Your task to perform on an android device: change your default location settings in chrome Image 0: 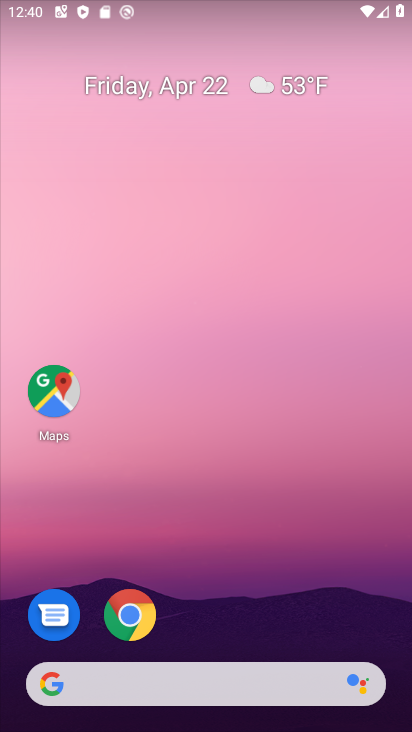
Step 0: press home button
Your task to perform on an android device: change your default location settings in chrome Image 1: 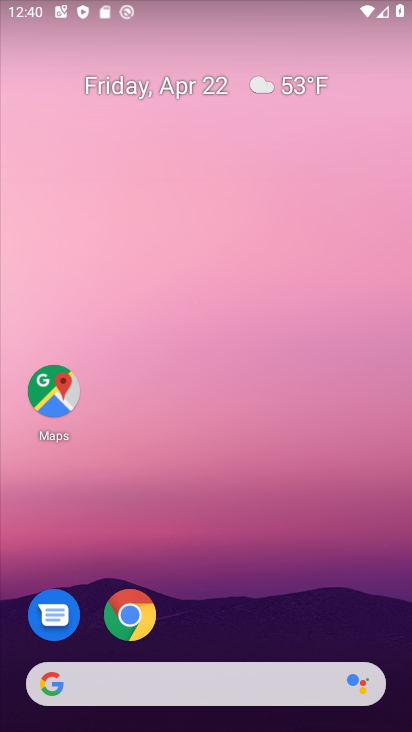
Step 1: click (130, 623)
Your task to perform on an android device: change your default location settings in chrome Image 2: 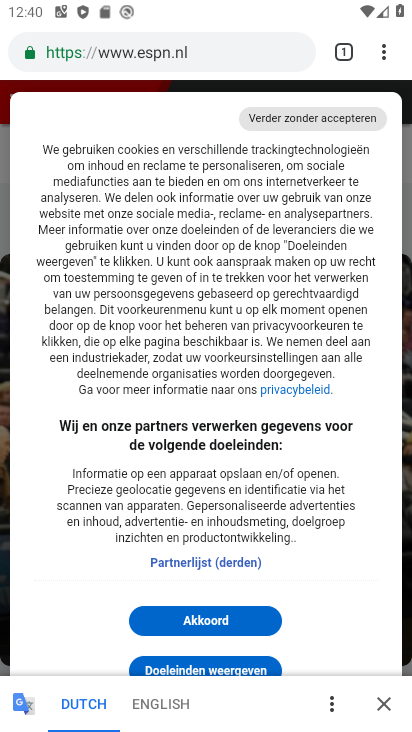
Step 2: click (385, 48)
Your task to perform on an android device: change your default location settings in chrome Image 3: 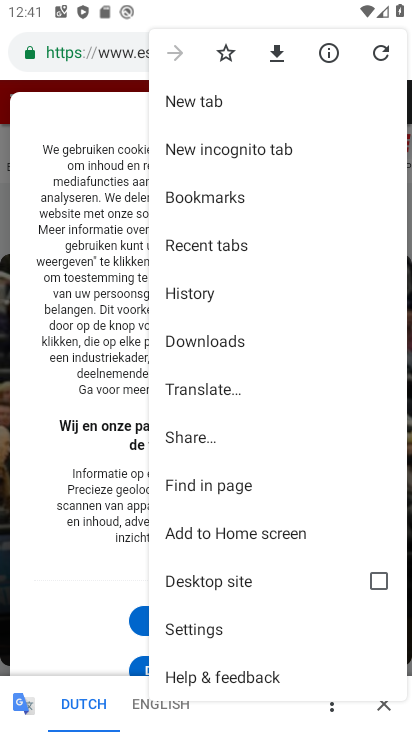
Step 3: click (187, 631)
Your task to perform on an android device: change your default location settings in chrome Image 4: 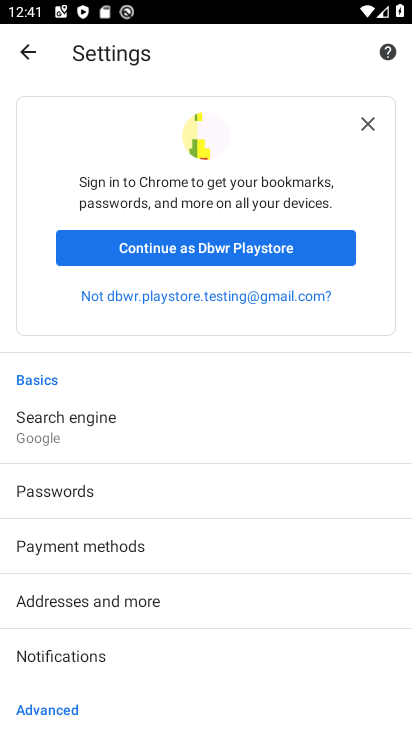
Step 4: drag from (187, 630) to (174, 296)
Your task to perform on an android device: change your default location settings in chrome Image 5: 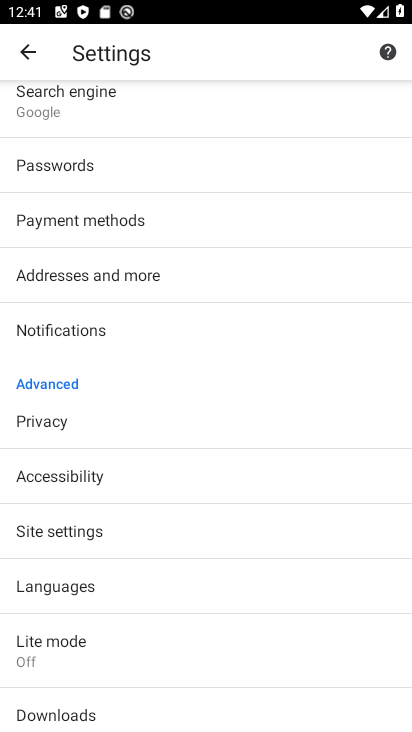
Step 5: click (70, 528)
Your task to perform on an android device: change your default location settings in chrome Image 6: 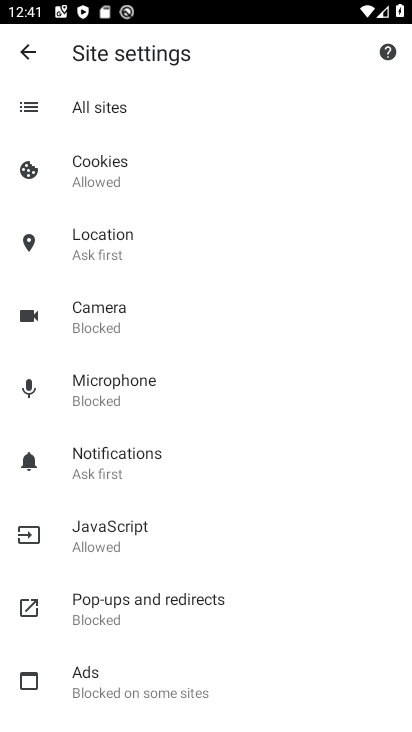
Step 6: click (98, 249)
Your task to perform on an android device: change your default location settings in chrome Image 7: 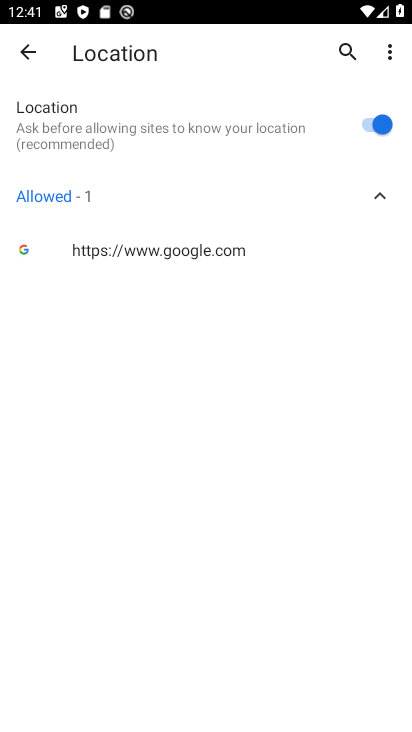
Step 7: click (381, 119)
Your task to perform on an android device: change your default location settings in chrome Image 8: 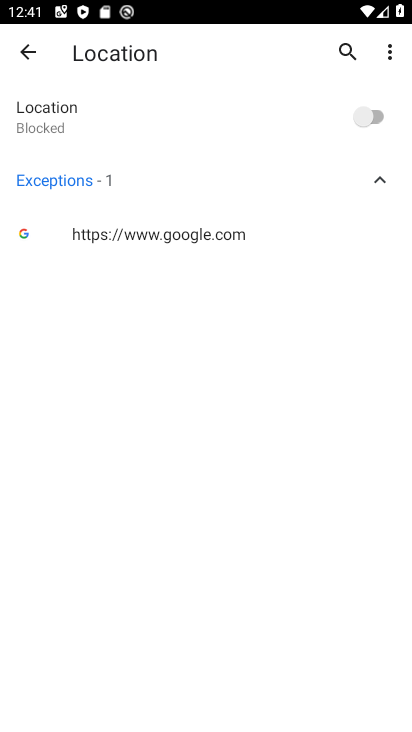
Step 8: task complete